Your task to perform on an android device: clear all cookies in the chrome app Image 0: 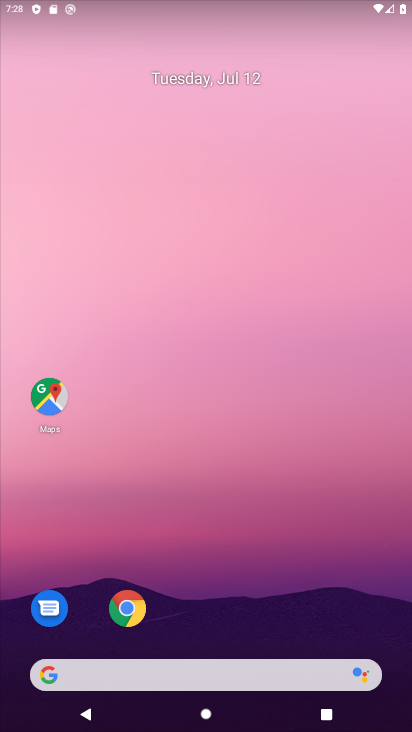
Step 0: click (118, 612)
Your task to perform on an android device: clear all cookies in the chrome app Image 1: 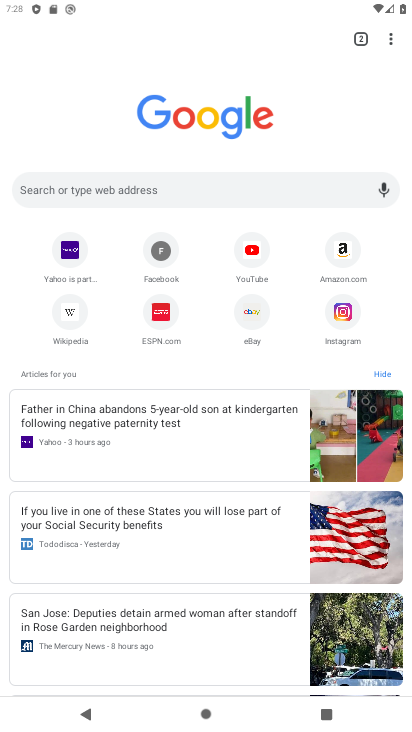
Step 1: click (387, 44)
Your task to perform on an android device: clear all cookies in the chrome app Image 2: 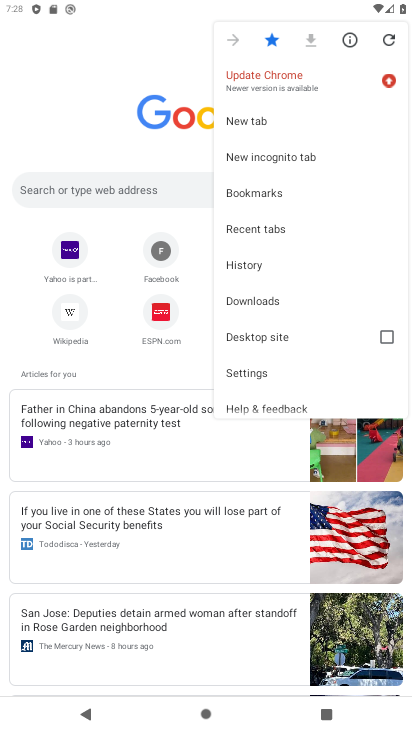
Step 2: click (268, 381)
Your task to perform on an android device: clear all cookies in the chrome app Image 3: 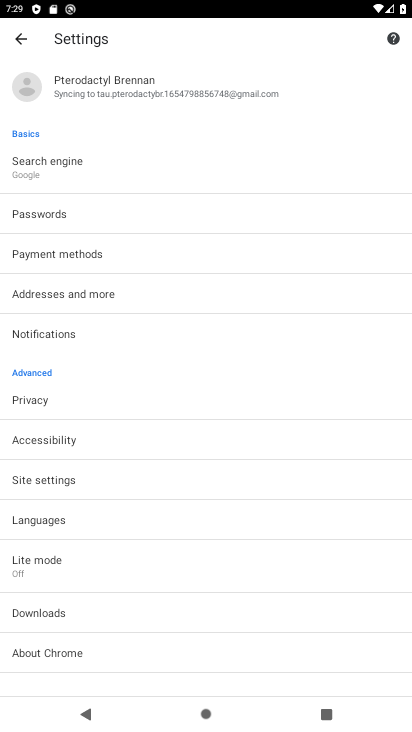
Step 3: click (15, 40)
Your task to perform on an android device: clear all cookies in the chrome app Image 4: 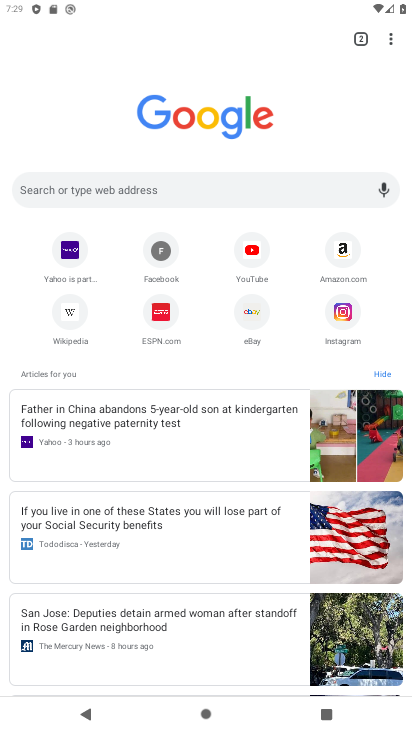
Step 4: click (390, 39)
Your task to perform on an android device: clear all cookies in the chrome app Image 5: 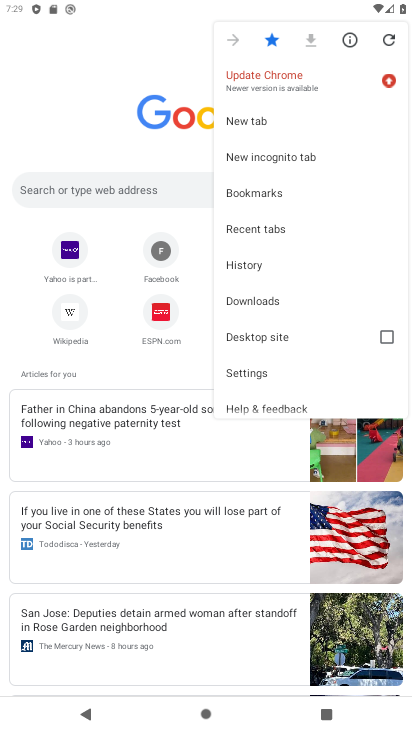
Step 5: click (232, 268)
Your task to perform on an android device: clear all cookies in the chrome app Image 6: 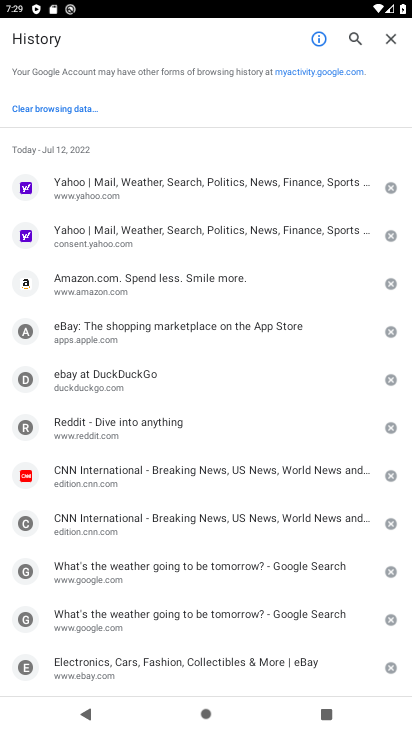
Step 6: click (82, 107)
Your task to perform on an android device: clear all cookies in the chrome app Image 7: 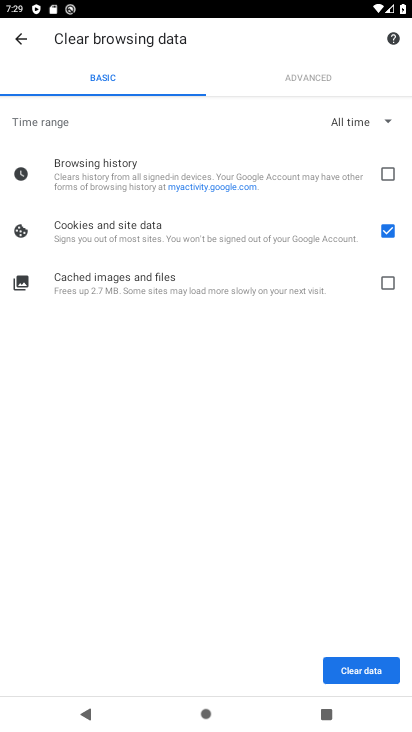
Step 7: click (342, 674)
Your task to perform on an android device: clear all cookies in the chrome app Image 8: 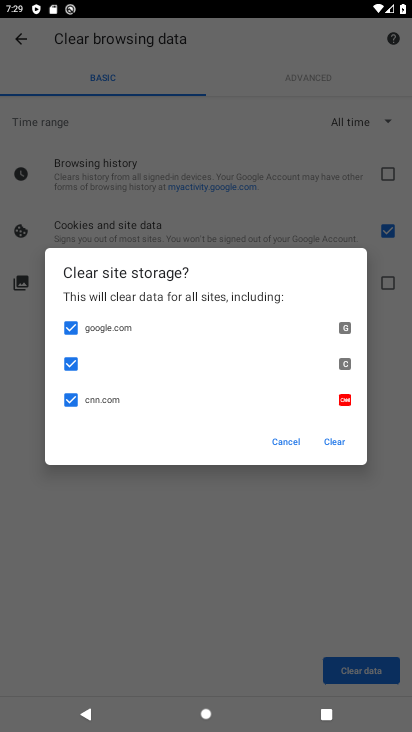
Step 8: click (331, 440)
Your task to perform on an android device: clear all cookies in the chrome app Image 9: 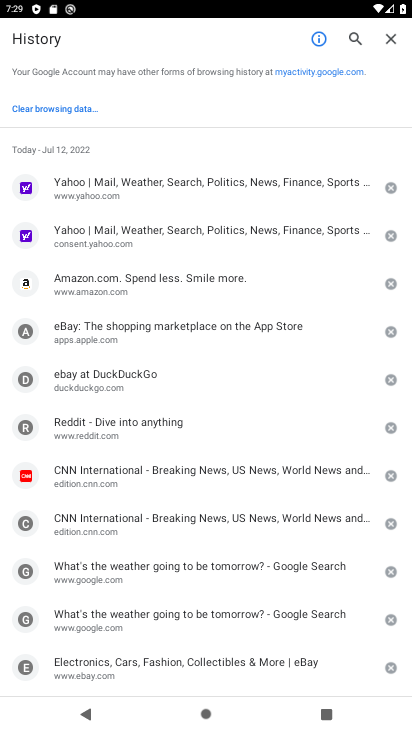
Step 9: task complete